Your task to perform on an android device: Open Google Chrome Image 0: 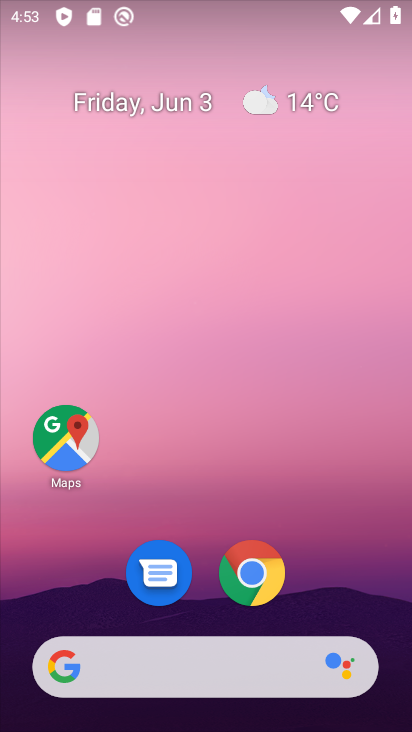
Step 0: click (255, 573)
Your task to perform on an android device: Open Google Chrome Image 1: 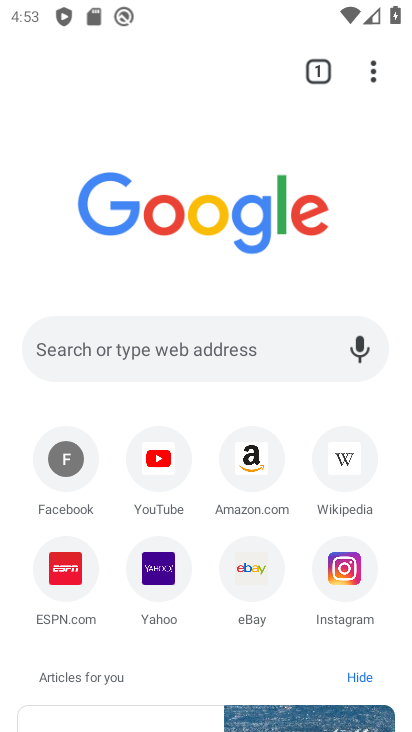
Step 1: task complete